Your task to perform on an android device: Open settings Image 0: 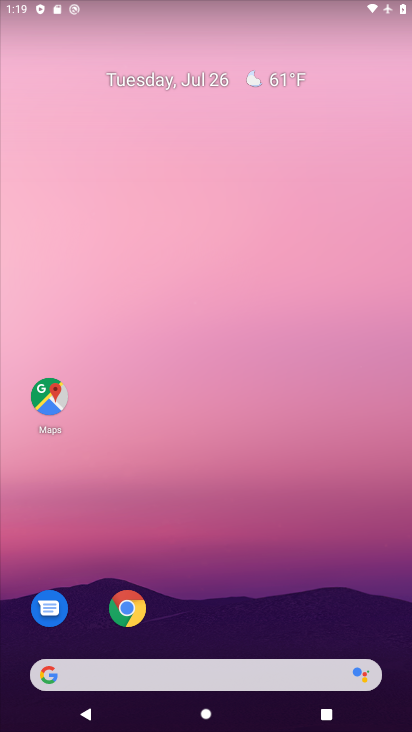
Step 0: drag from (192, 619) to (186, 118)
Your task to perform on an android device: Open settings Image 1: 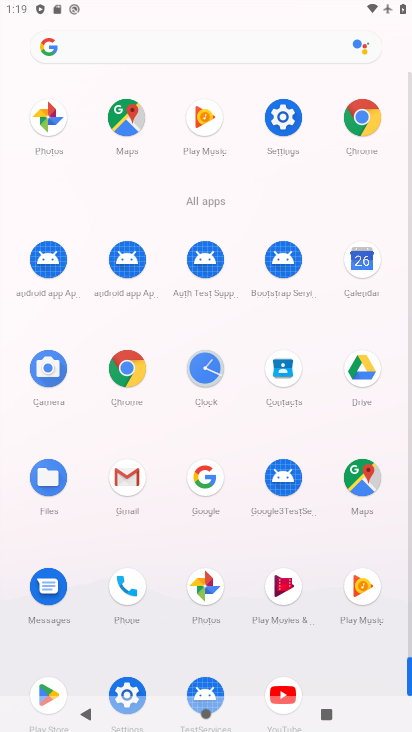
Step 1: click (278, 120)
Your task to perform on an android device: Open settings Image 2: 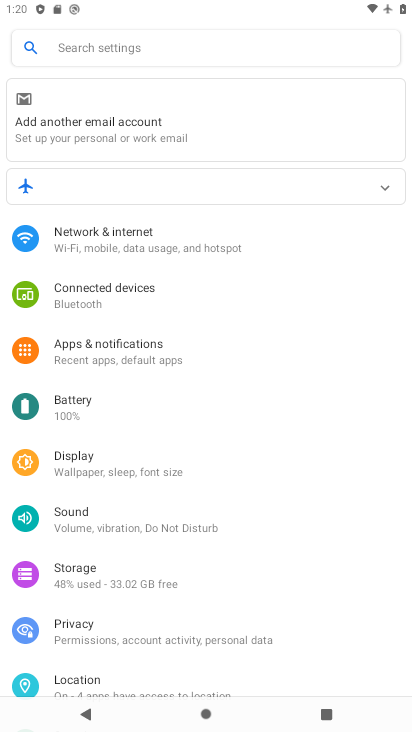
Step 2: task complete